Your task to perform on an android device: check data usage Image 0: 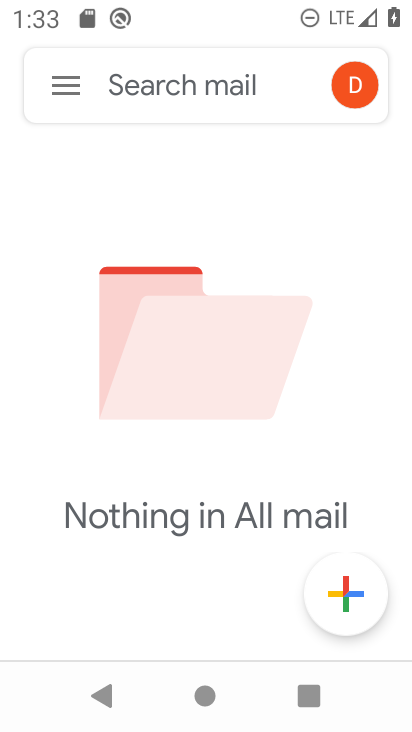
Step 0: press home button
Your task to perform on an android device: check data usage Image 1: 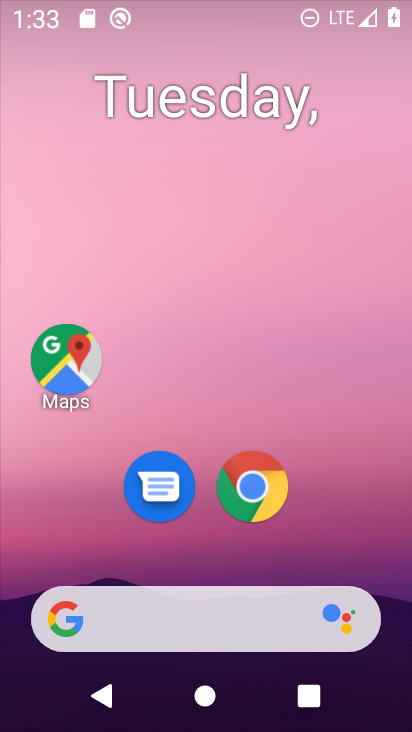
Step 1: drag from (264, 559) to (270, 117)
Your task to perform on an android device: check data usage Image 2: 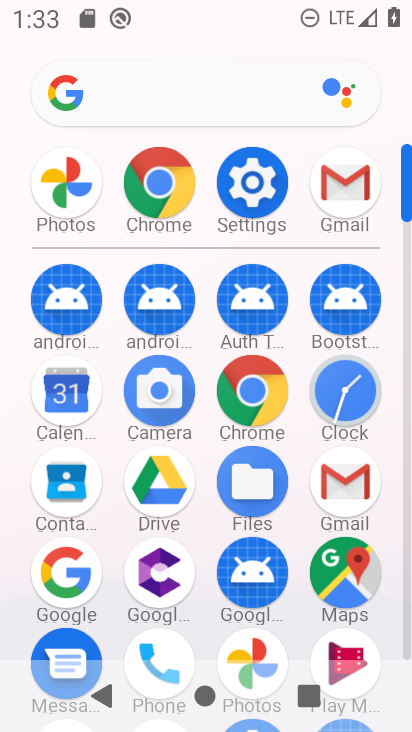
Step 2: drag from (206, 271) to (220, 62)
Your task to perform on an android device: check data usage Image 3: 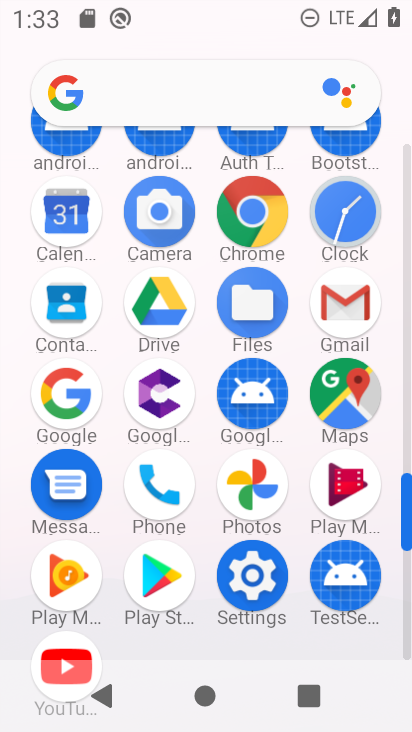
Step 3: click (244, 585)
Your task to perform on an android device: check data usage Image 4: 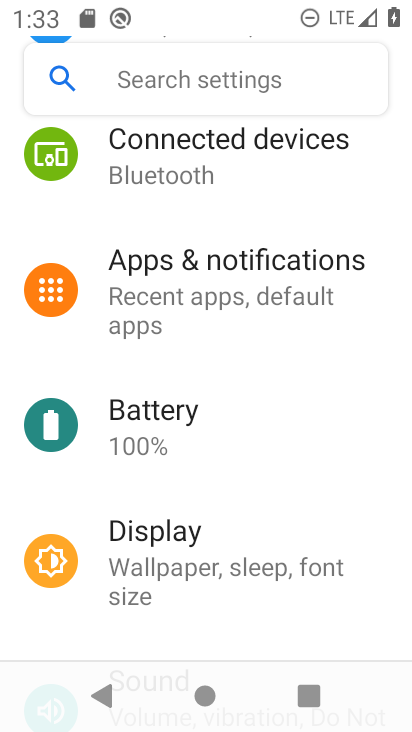
Step 4: drag from (212, 213) to (224, 462)
Your task to perform on an android device: check data usage Image 5: 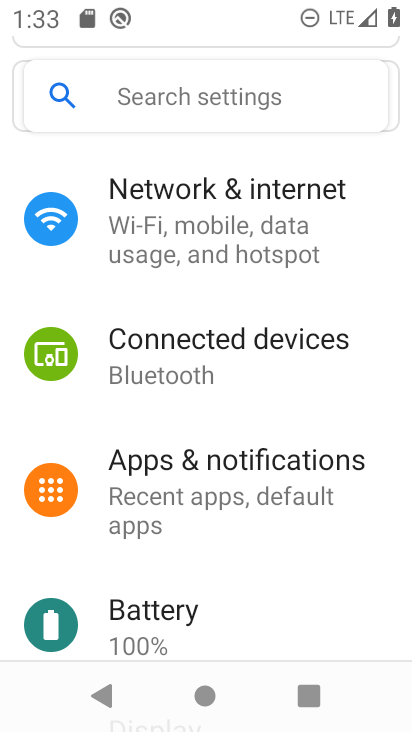
Step 5: click (200, 242)
Your task to perform on an android device: check data usage Image 6: 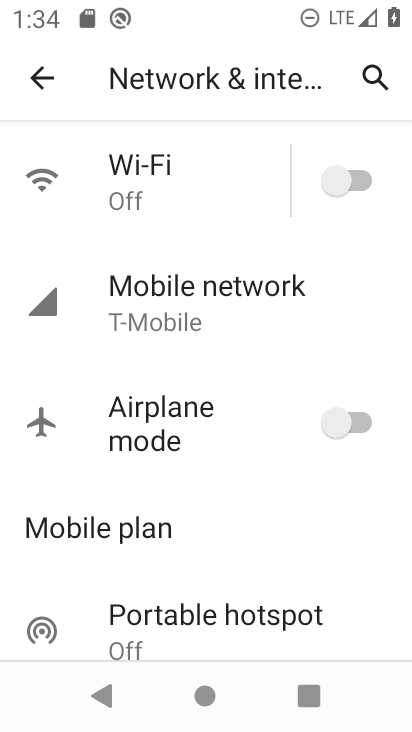
Step 6: click (176, 307)
Your task to perform on an android device: check data usage Image 7: 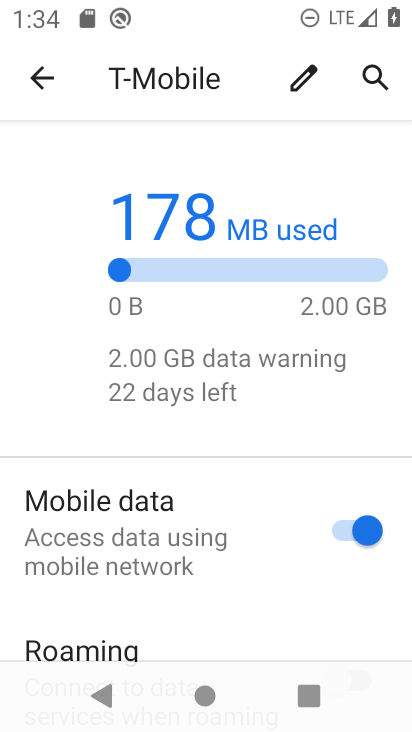
Step 7: drag from (142, 564) to (183, 268)
Your task to perform on an android device: check data usage Image 8: 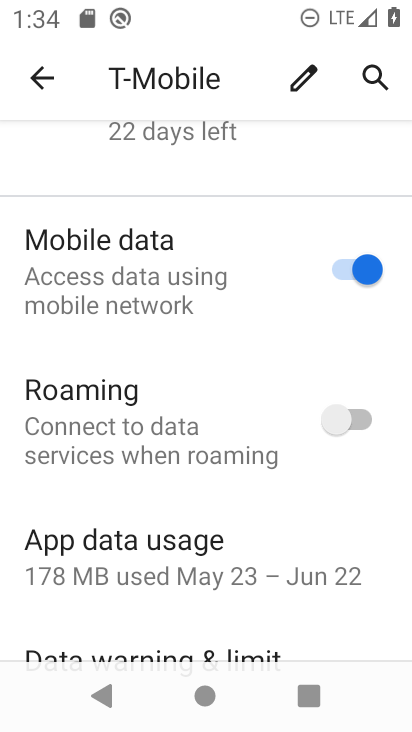
Step 8: click (150, 567)
Your task to perform on an android device: check data usage Image 9: 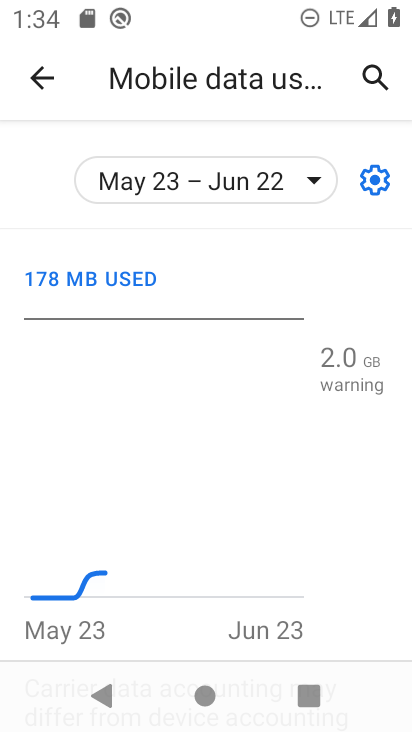
Step 9: task complete